Your task to perform on an android device: Open my contact list Image 0: 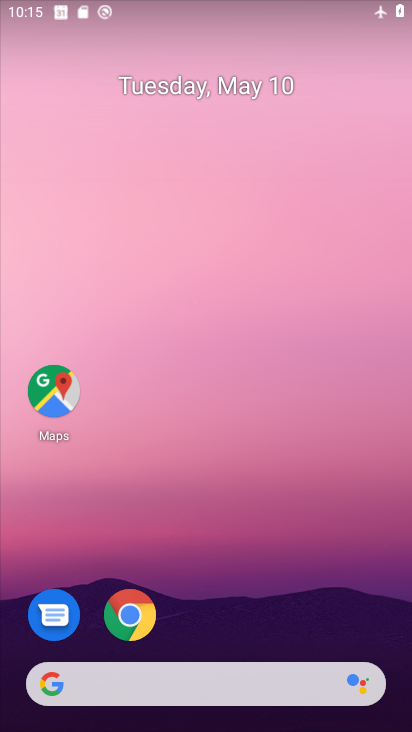
Step 0: drag from (214, 633) to (234, 293)
Your task to perform on an android device: Open my contact list Image 1: 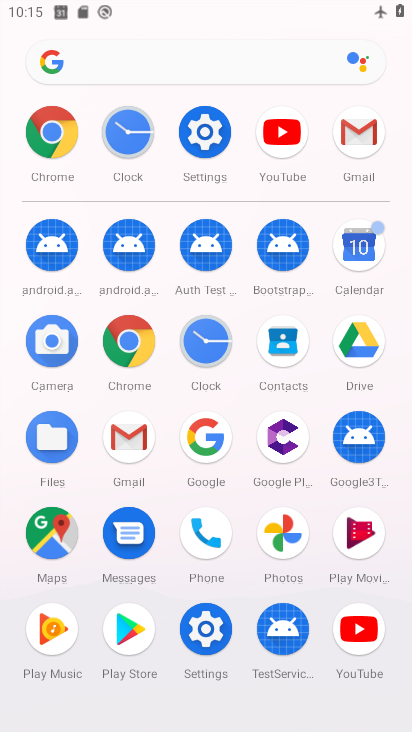
Step 1: click (290, 356)
Your task to perform on an android device: Open my contact list Image 2: 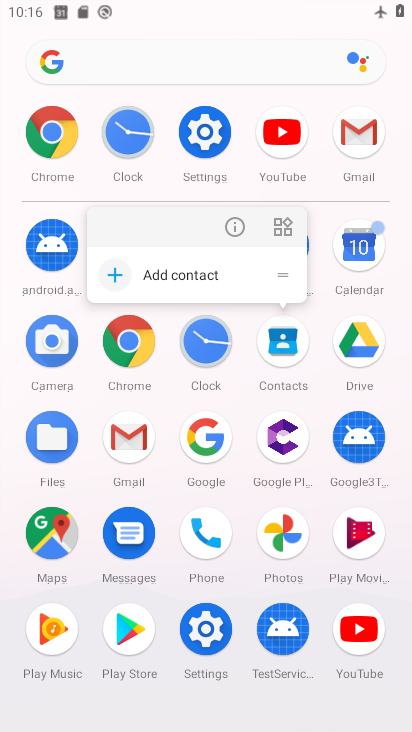
Step 2: click (231, 220)
Your task to perform on an android device: Open my contact list Image 3: 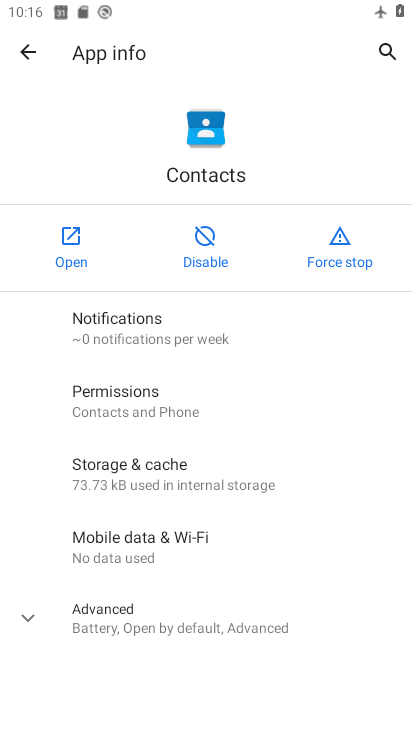
Step 3: click (75, 255)
Your task to perform on an android device: Open my contact list Image 4: 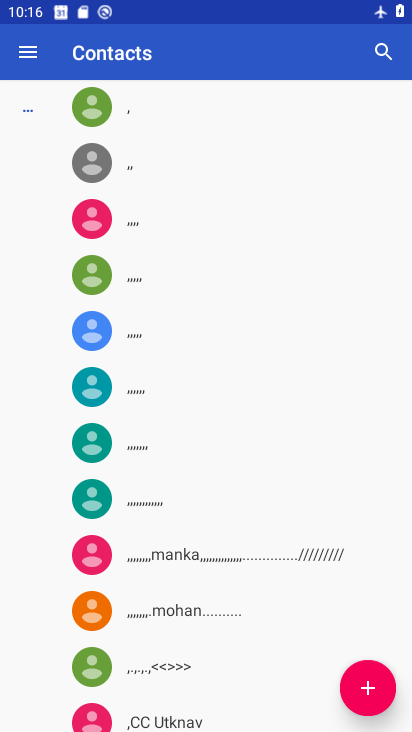
Step 4: task complete